Your task to perform on an android device: Open wifi settings Image 0: 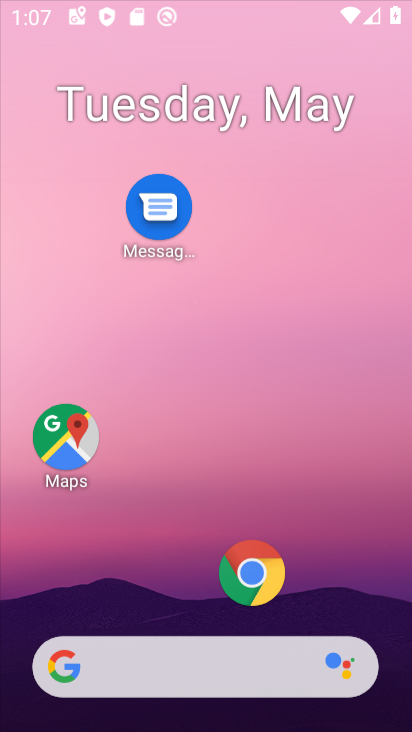
Step 0: drag from (209, 584) to (297, 8)
Your task to perform on an android device: Open wifi settings Image 1: 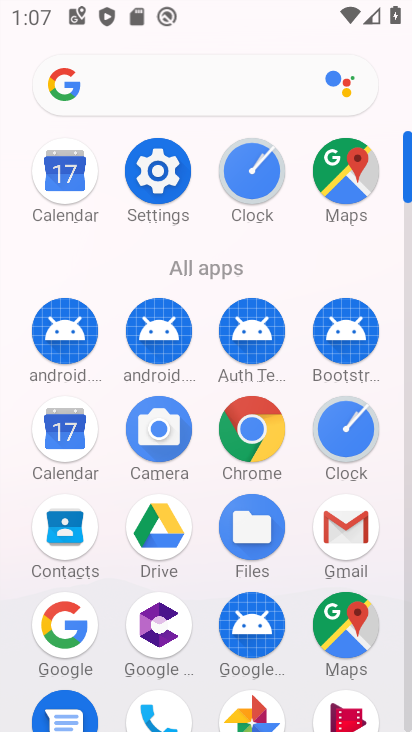
Step 1: click (180, 180)
Your task to perform on an android device: Open wifi settings Image 2: 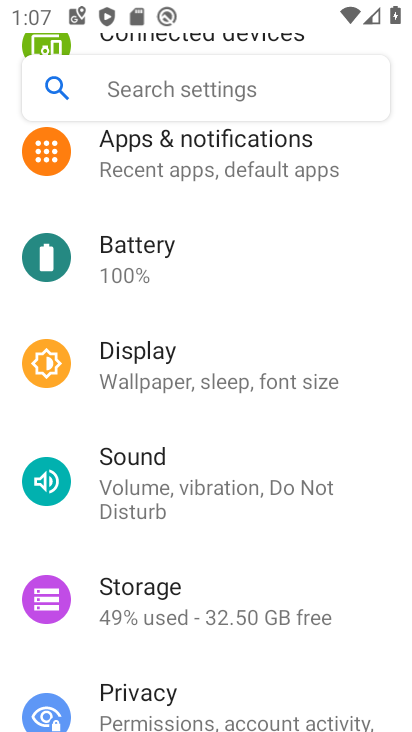
Step 2: drag from (208, 203) to (169, 673)
Your task to perform on an android device: Open wifi settings Image 3: 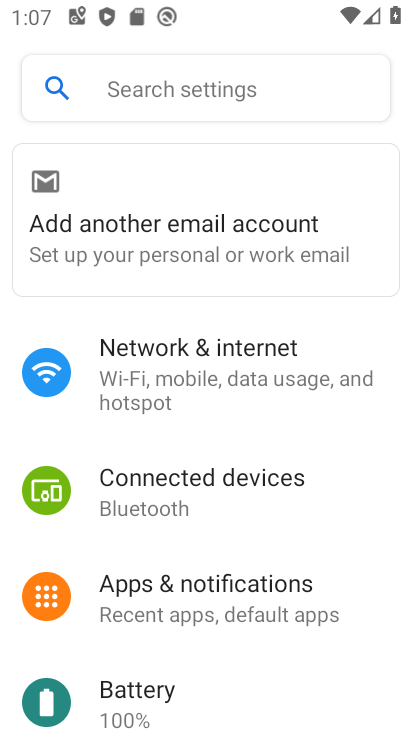
Step 3: click (165, 368)
Your task to perform on an android device: Open wifi settings Image 4: 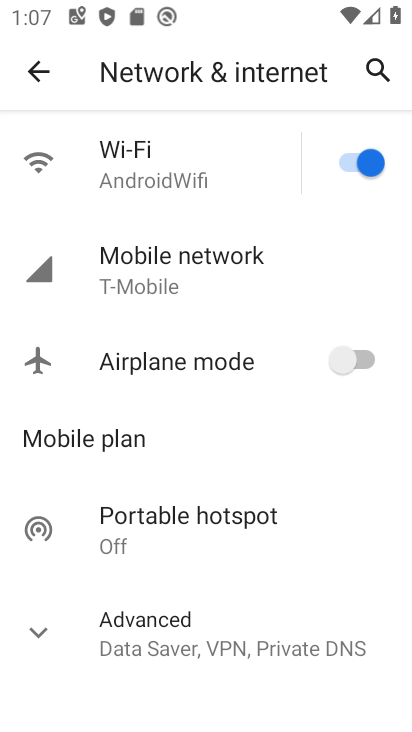
Step 4: click (157, 163)
Your task to perform on an android device: Open wifi settings Image 5: 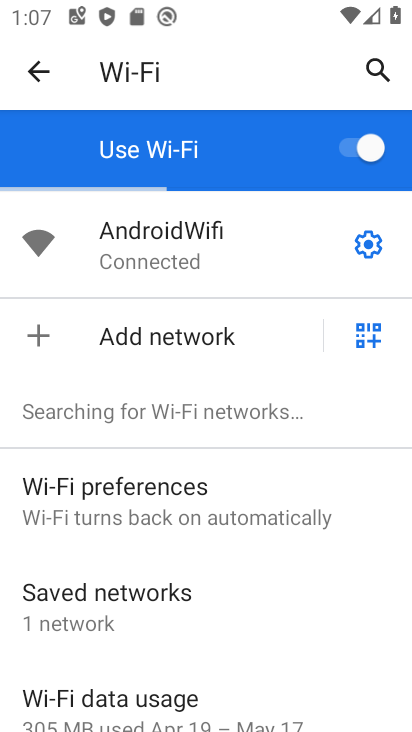
Step 5: task complete